Your task to perform on an android device: Add "bose soundlink" to the cart on walmart Image 0: 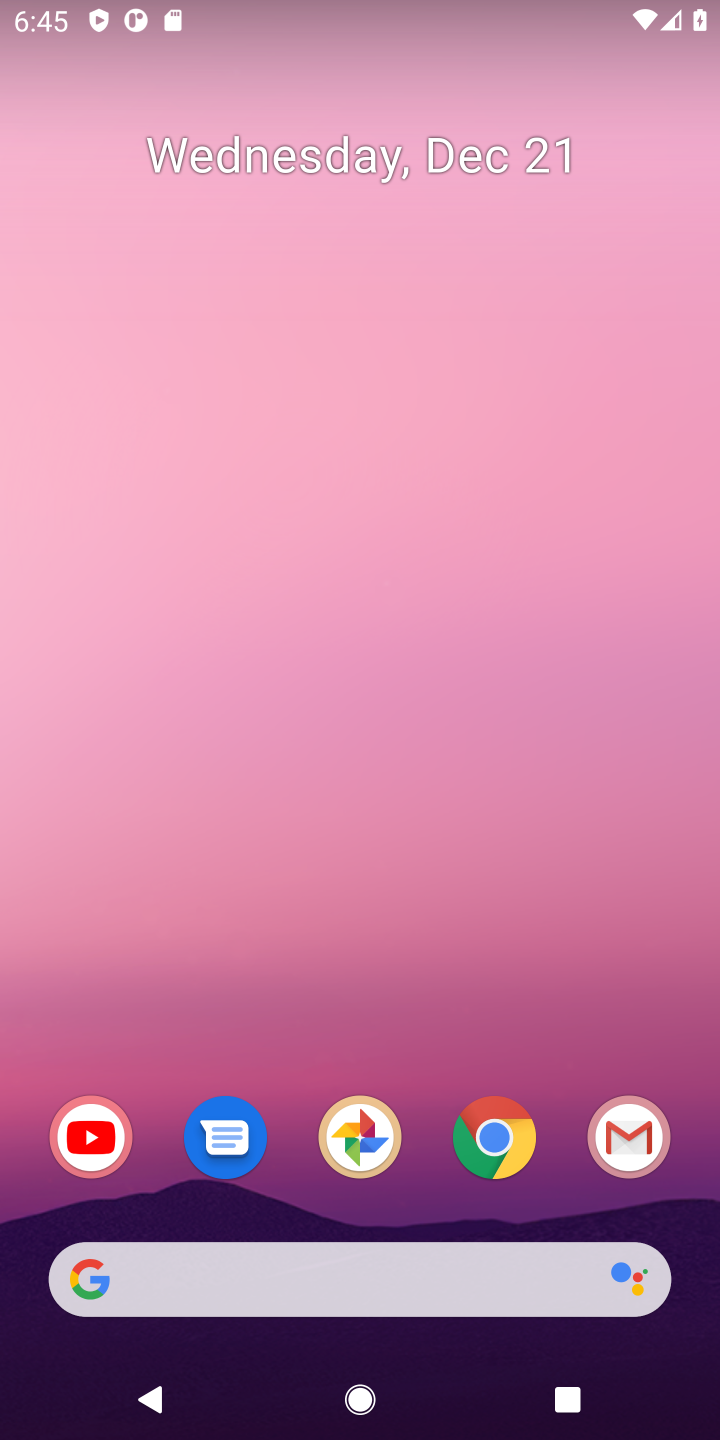
Step 0: click (499, 1152)
Your task to perform on an android device: Add "bose soundlink" to the cart on walmart Image 1: 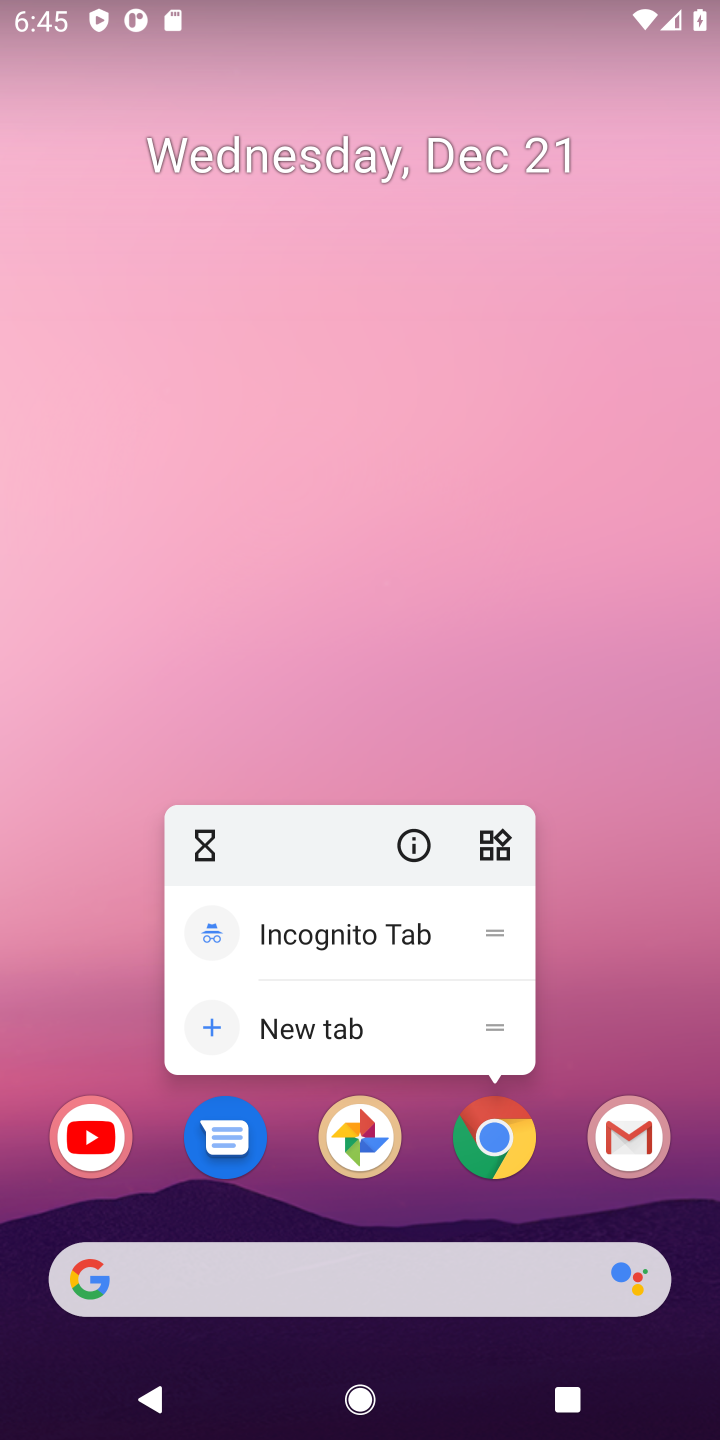
Step 1: click (499, 1152)
Your task to perform on an android device: Add "bose soundlink" to the cart on walmart Image 2: 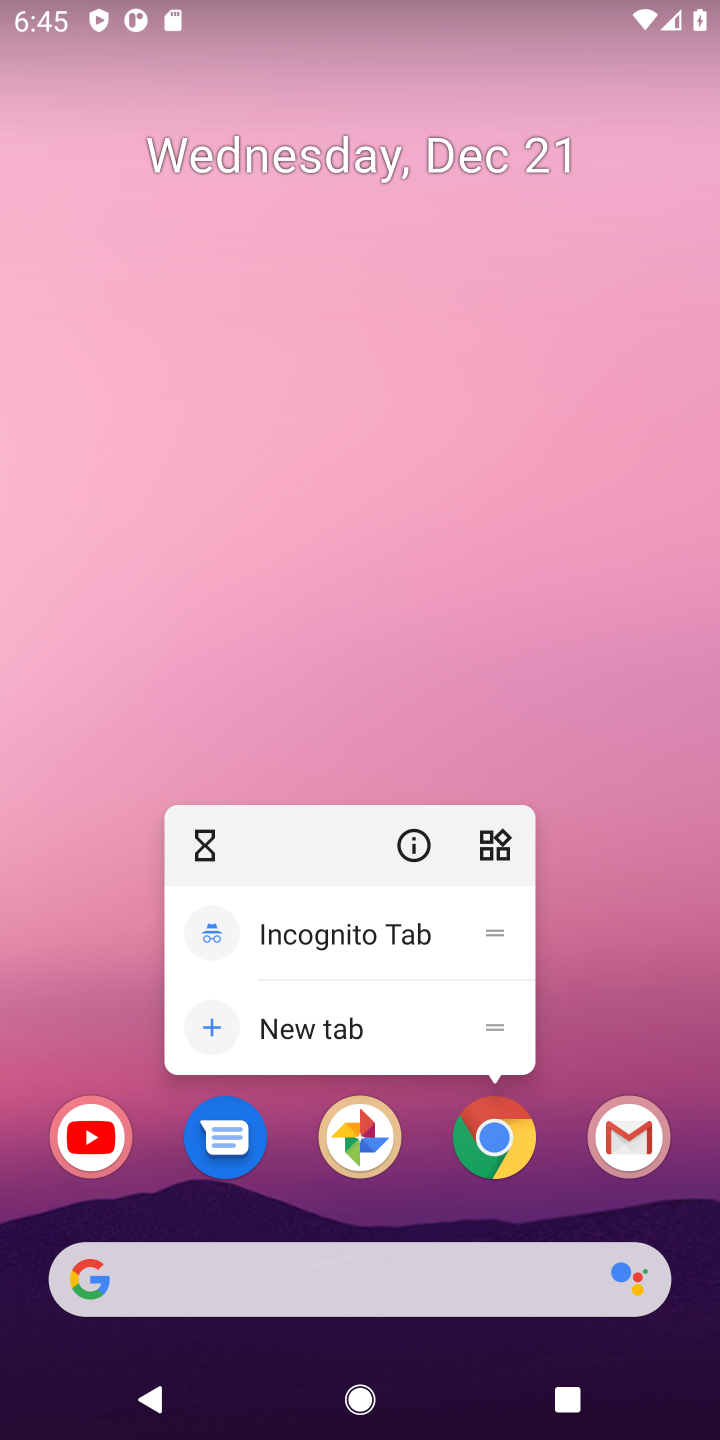
Step 2: click (499, 1152)
Your task to perform on an android device: Add "bose soundlink" to the cart on walmart Image 3: 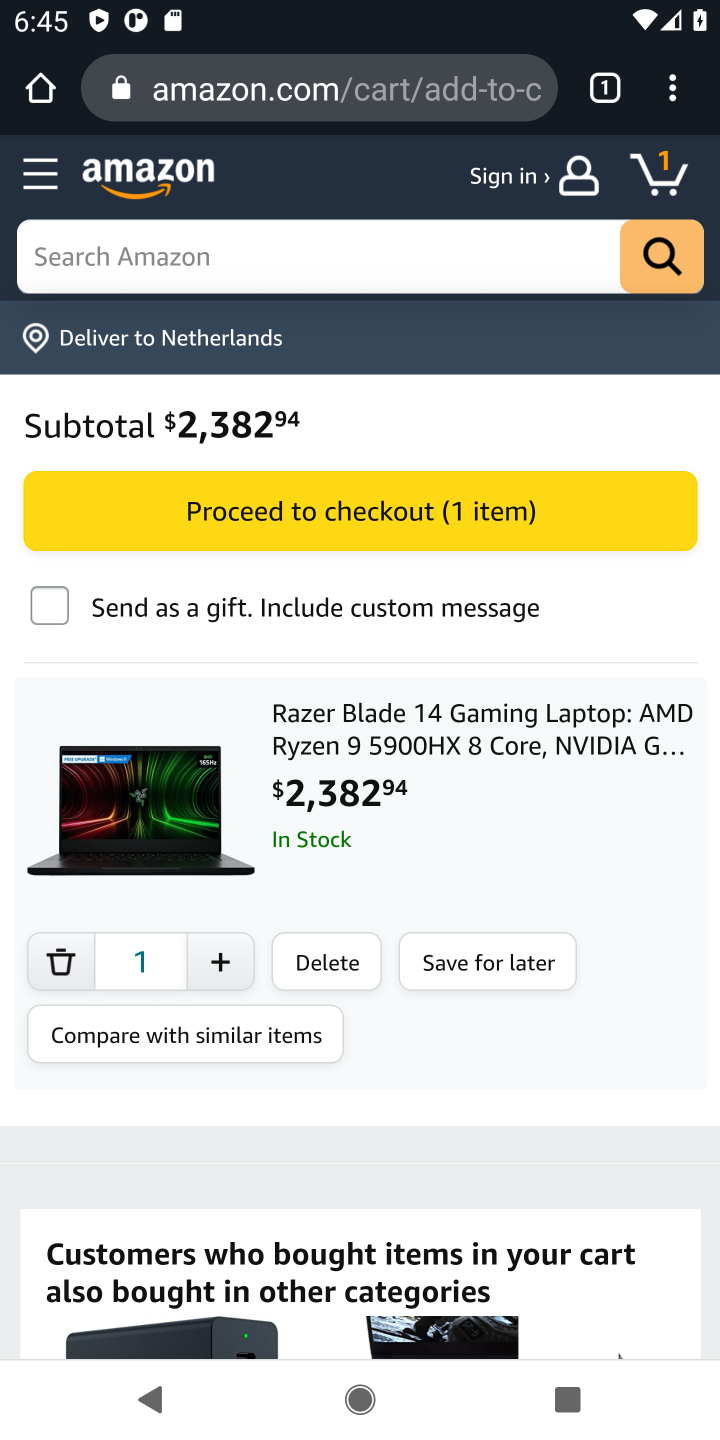
Step 3: click (237, 88)
Your task to perform on an android device: Add "bose soundlink" to the cart on walmart Image 4: 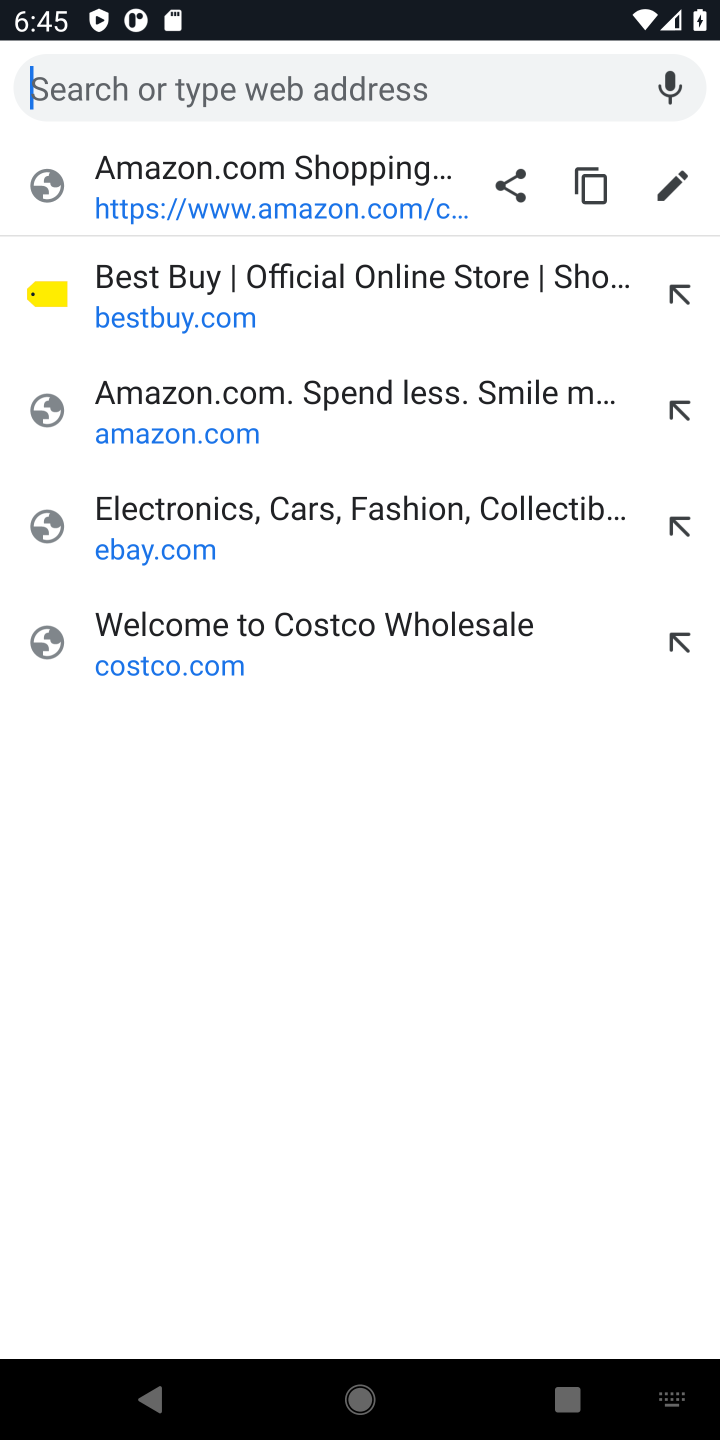
Step 4: type "walmart.com"
Your task to perform on an android device: Add "bose soundlink" to the cart on walmart Image 5: 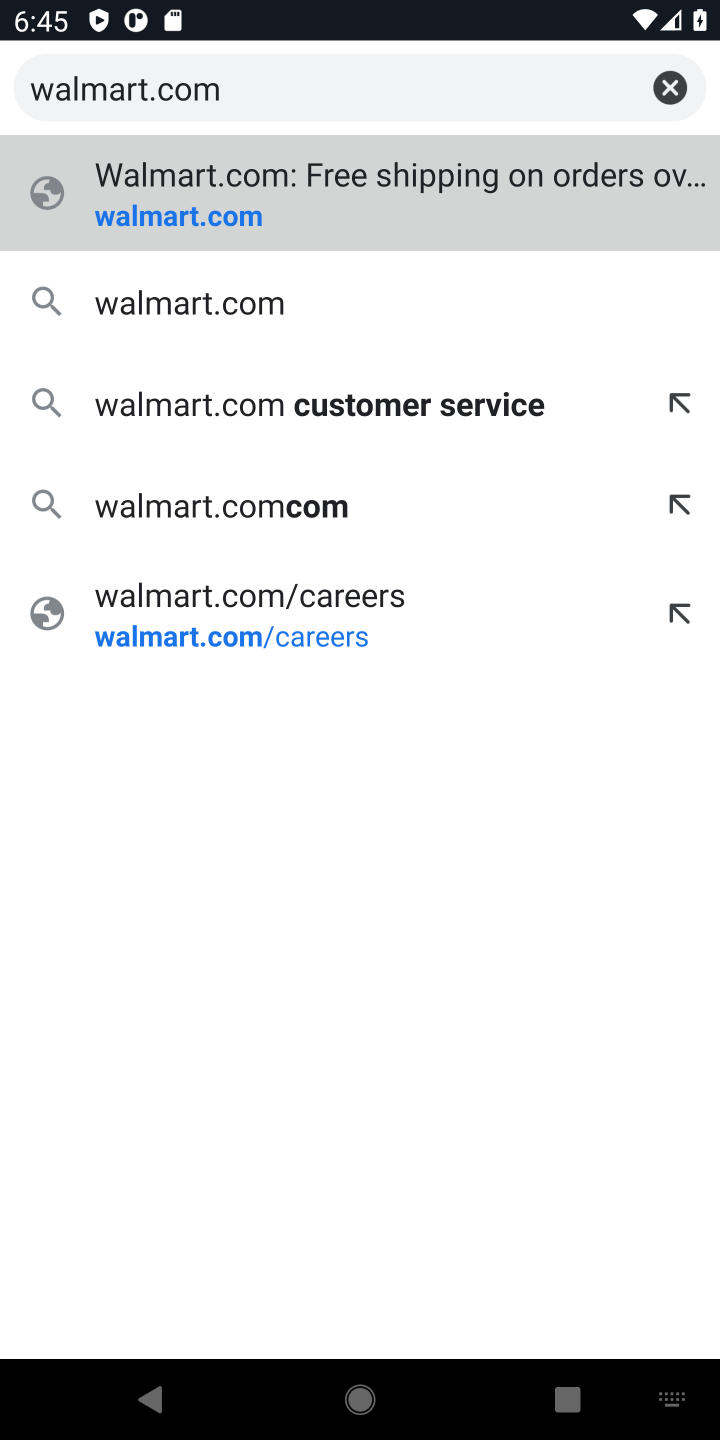
Step 5: click (146, 211)
Your task to perform on an android device: Add "bose soundlink" to the cart on walmart Image 6: 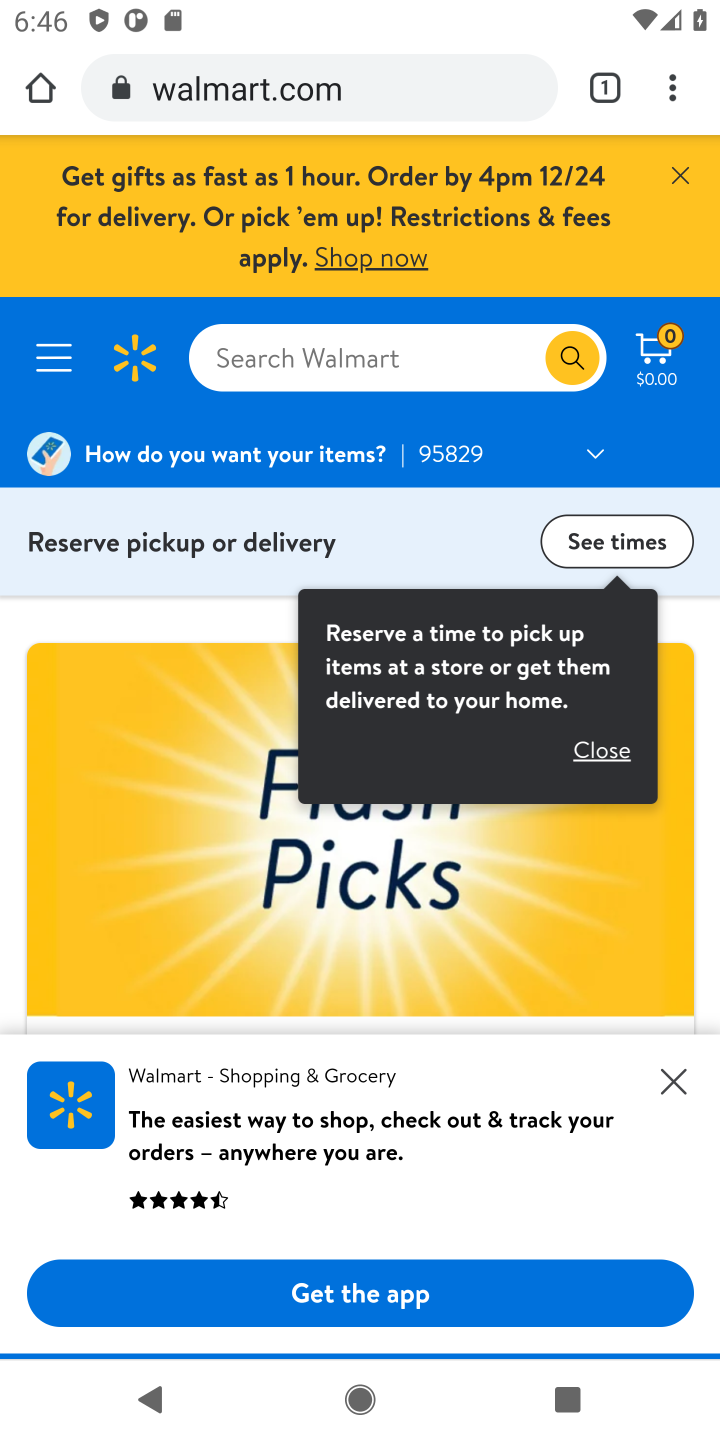
Step 6: click (236, 358)
Your task to perform on an android device: Add "bose soundlink" to the cart on walmart Image 7: 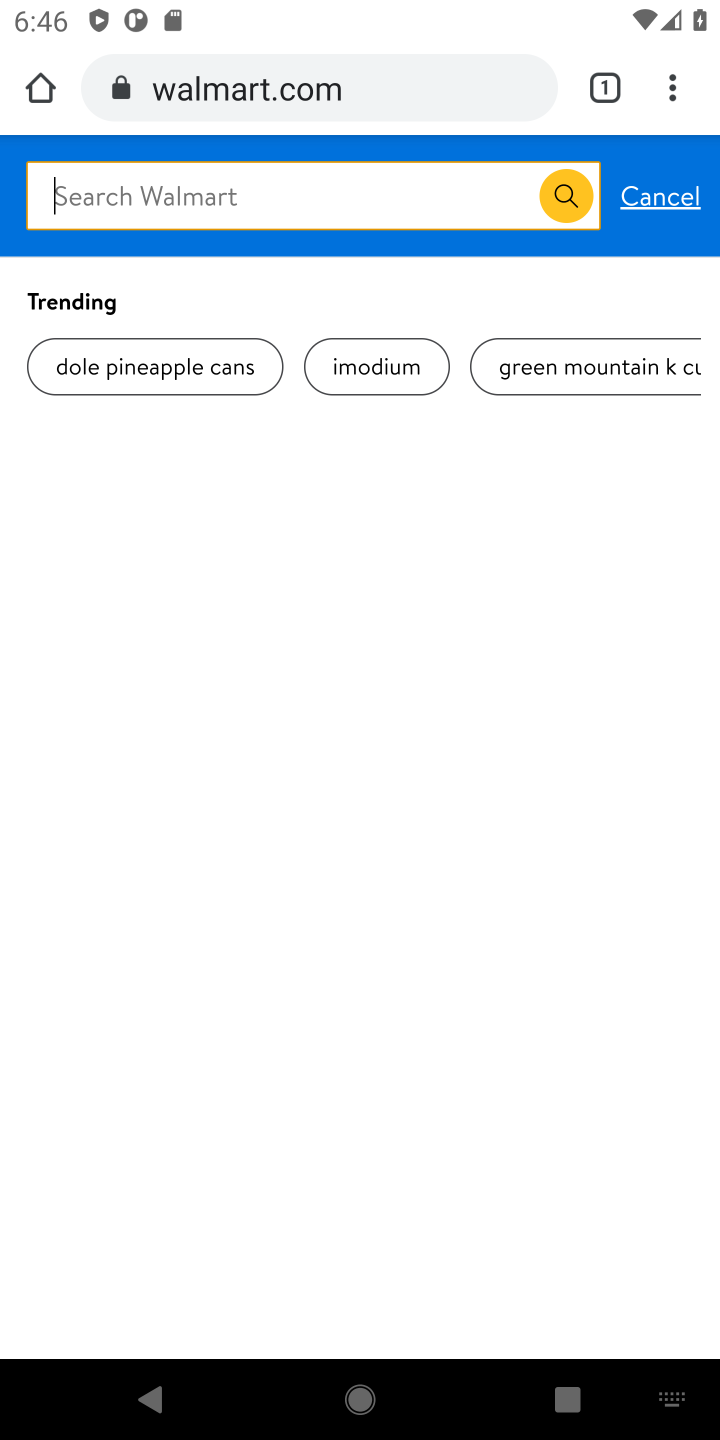
Step 7: type "bose soundlink"
Your task to perform on an android device: Add "bose soundlink" to the cart on walmart Image 8: 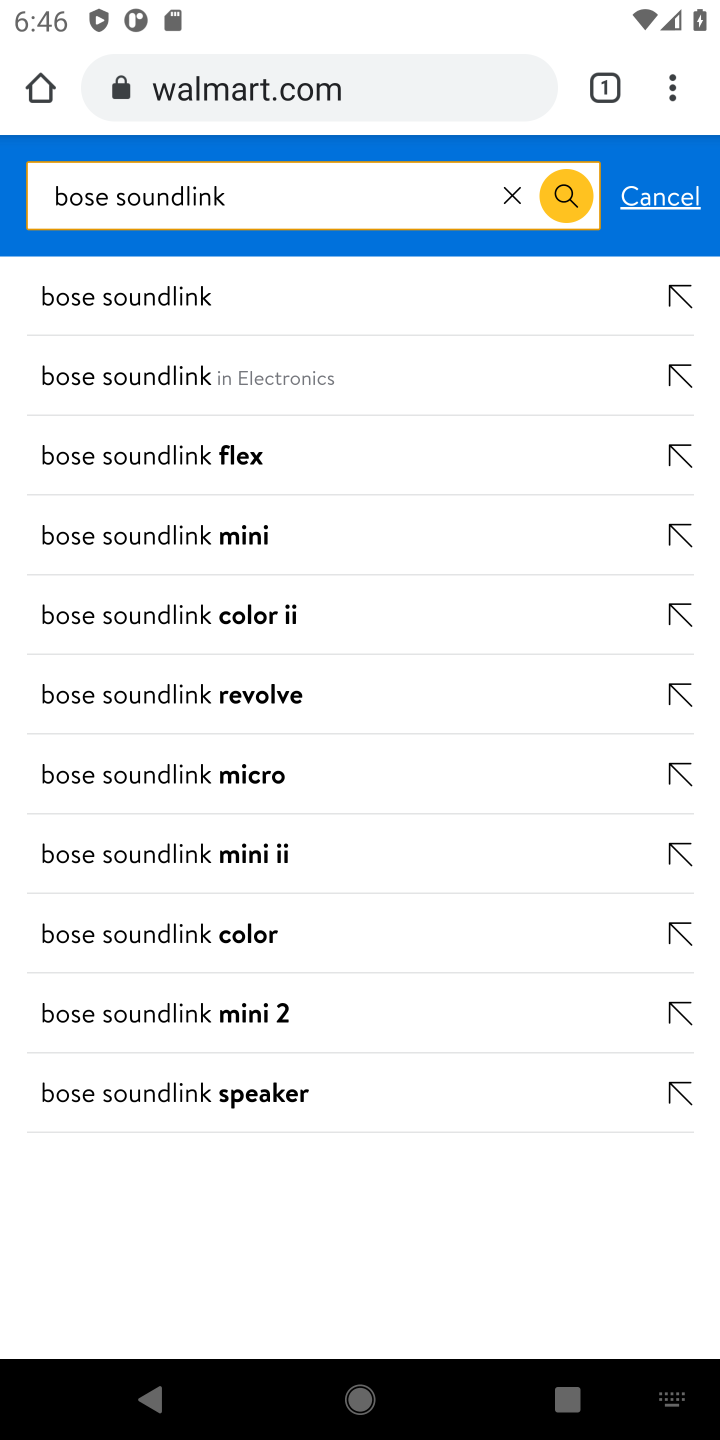
Step 8: click (136, 299)
Your task to perform on an android device: Add "bose soundlink" to the cart on walmart Image 9: 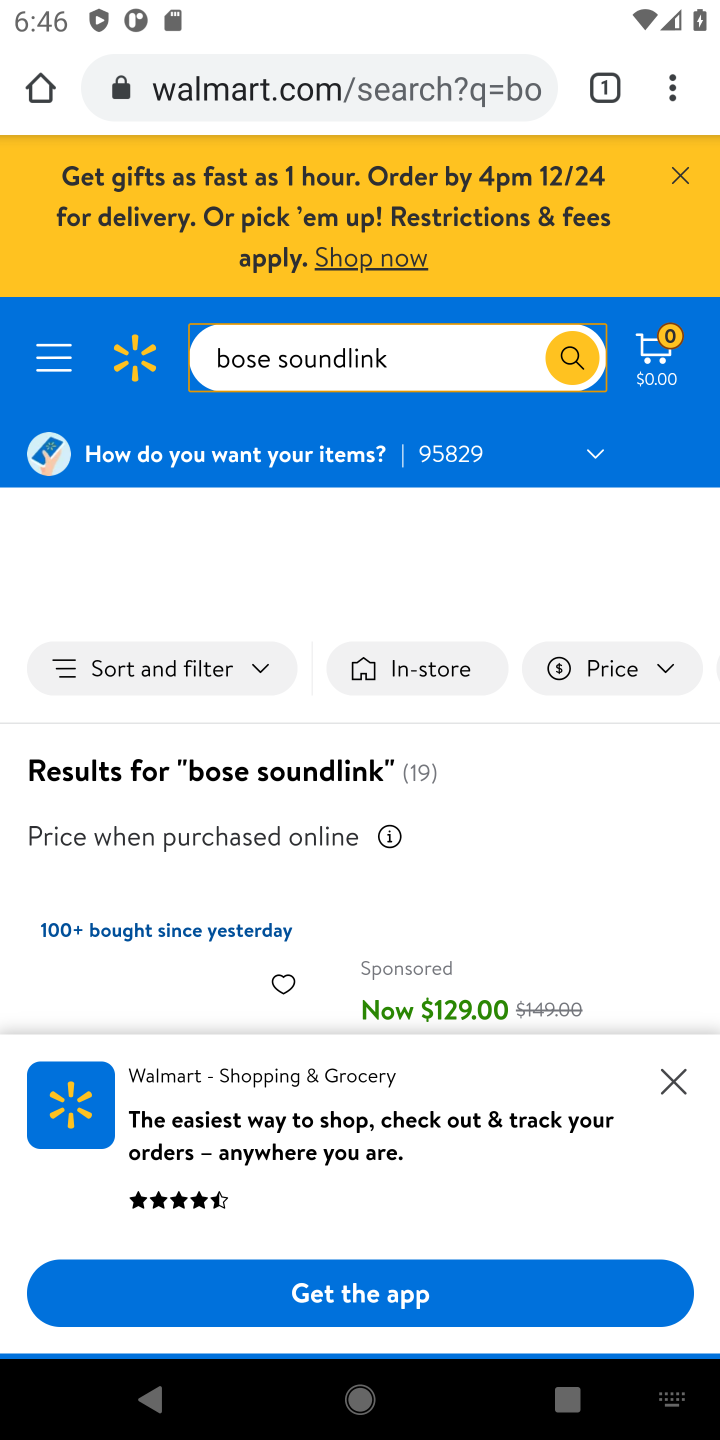
Step 9: drag from (378, 814) to (333, 281)
Your task to perform on an android device: Add "bose soundlink" to the cart on walmart Image 10: 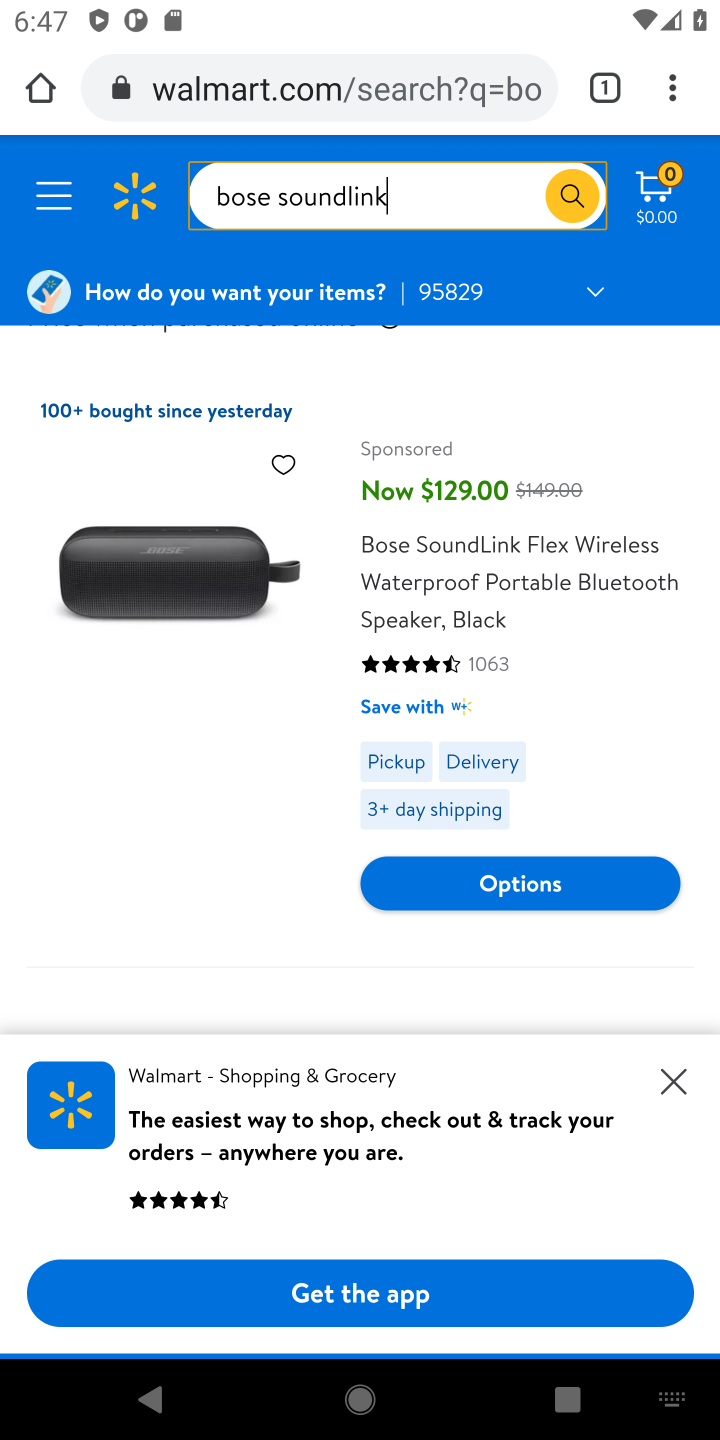
Step 10: click (457, 611)
Your task to perform on an android device: Add "bose soundlink" to the cart on walmart Image 11: 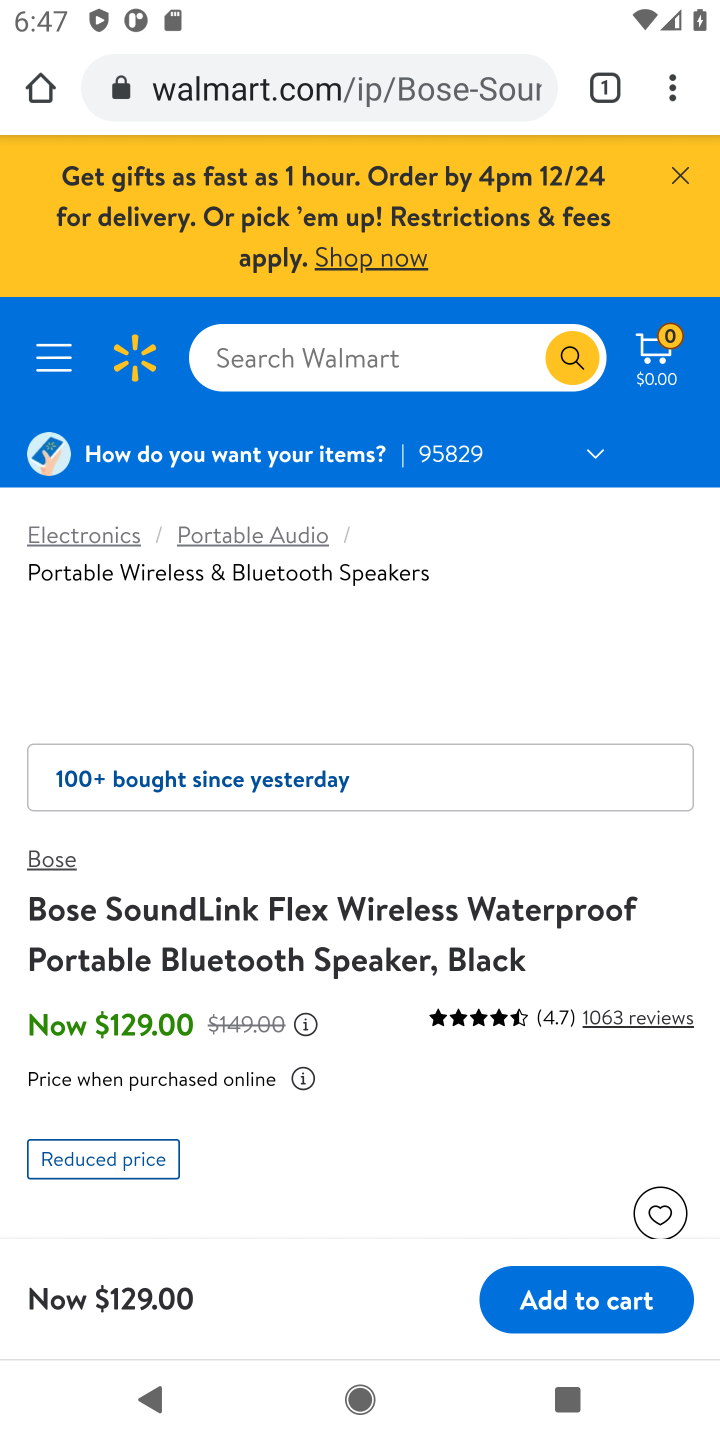
Step 11: click (577, 1311)
Your task to perform on an android device: Add "bose soundlink" to the cart on walmart Image 12: 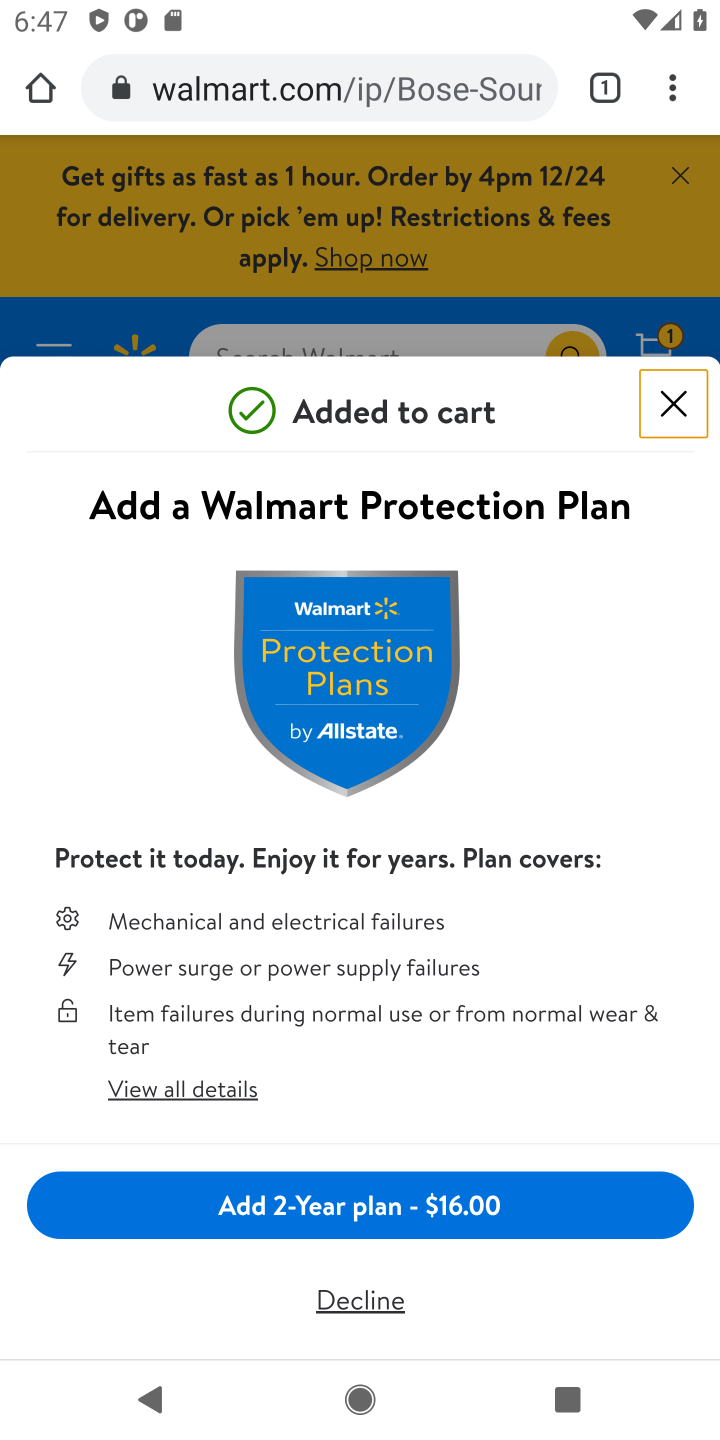
Step 12: task complete